Your task to perform on an android device: Find coffee shops on Maps Image 0: 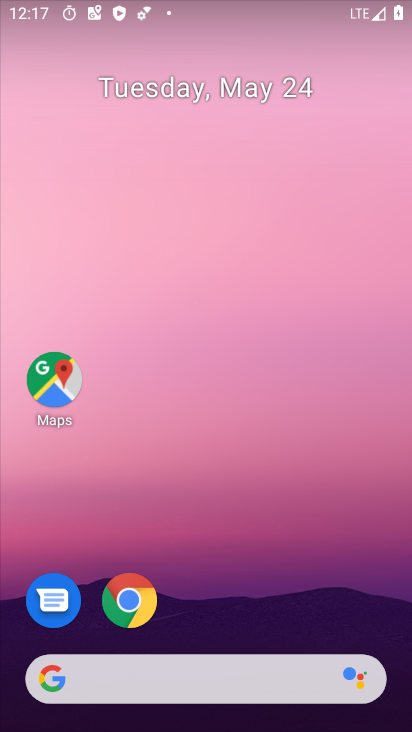
Step 0: click (46, 353)
Your task to perform on an android device: Find coffee shops on Maps Image 1: 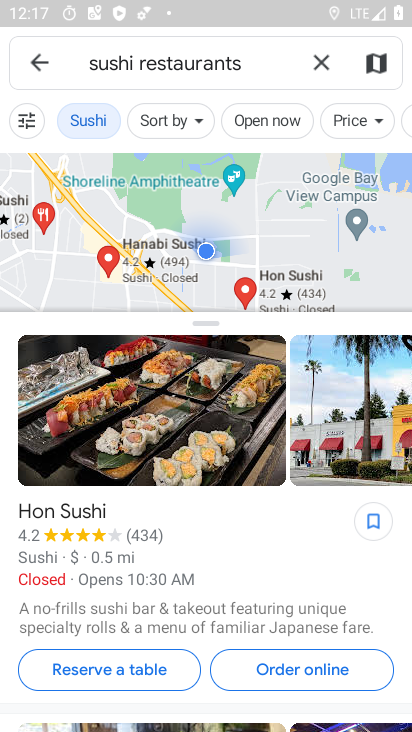
Step 1: click (328, 48)
Your task to perform on an android device: Find coffee shops on Maps Image 2: 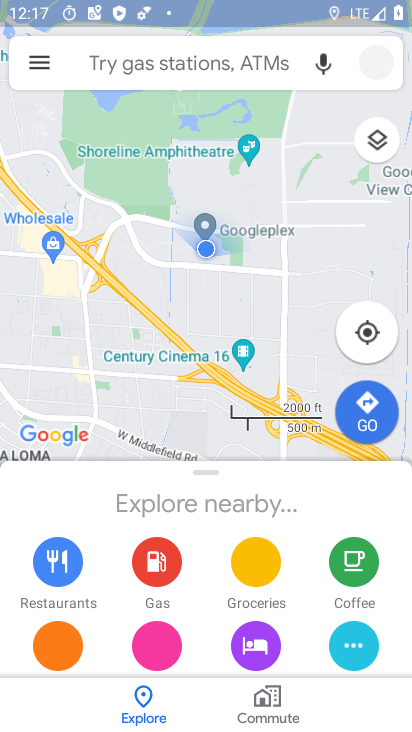
Step 2: click (213, 59)
Your task to perform on an android device: Find coffee shops on Maps Image 3: 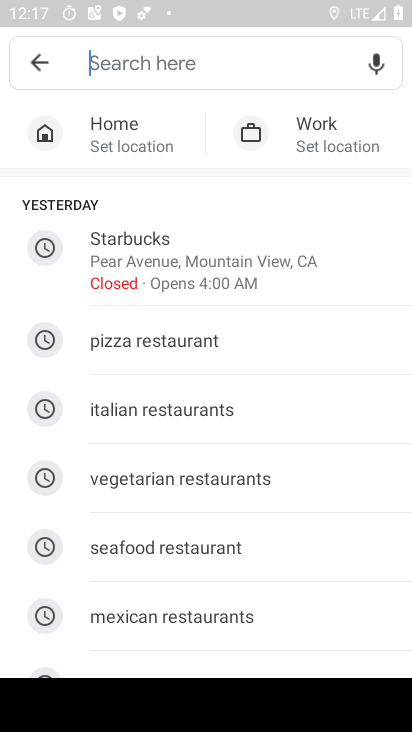
Step 3: type "coffee shops"
Your task to perform on an android device: Find coffee shops on Maps Image 4: 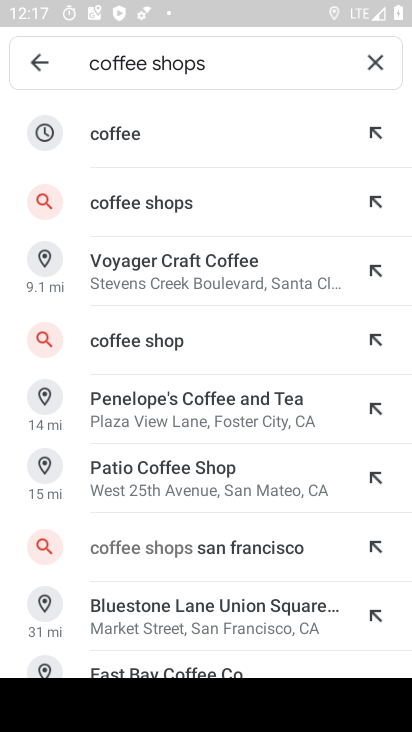
Step 4: click (134, 201)
Your task to perform on an android device: Find coffee shops on Maps Image 5: 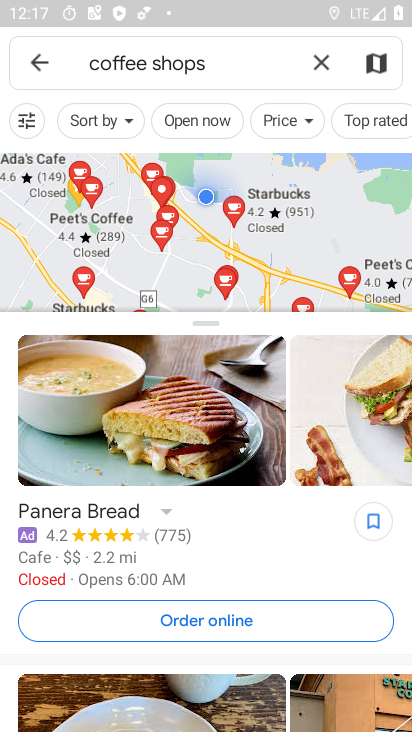
Step 5: task complete